Your task to perform on an android device: toggle javascript in the chrome app Image 0: 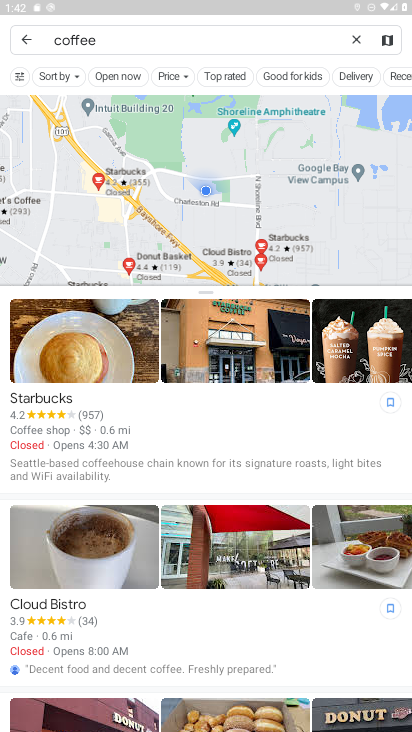
Step 0: task impossible